Your task to perform on an android device: check android version Image 0: 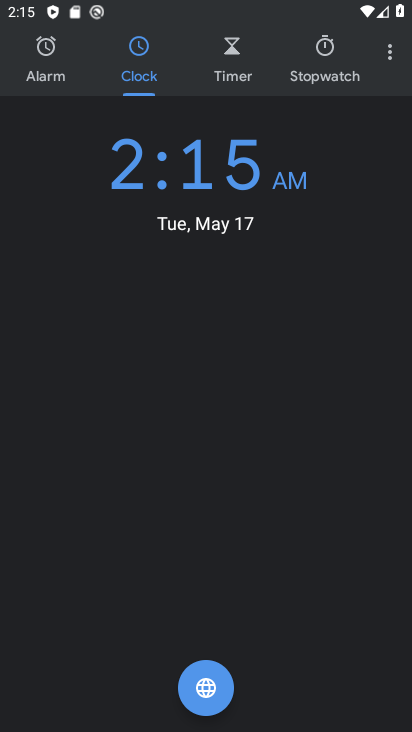
Step 0: press home button
Your task to perform on an android device: check android version Image 1: 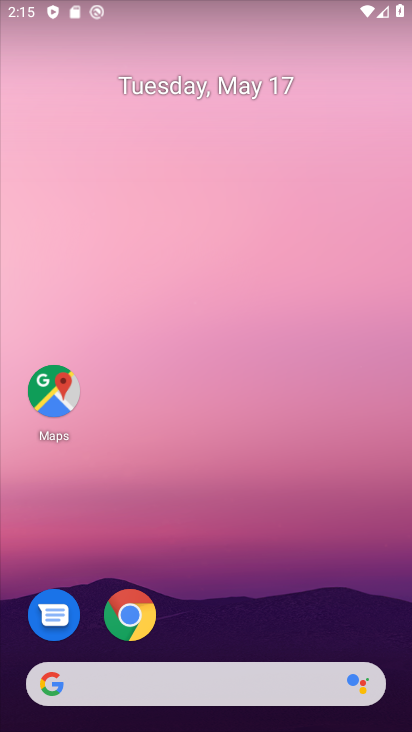
Step 1: drag from (205, 700) to (211, 258)
Your task to perform on an android device: check android version Image 2: 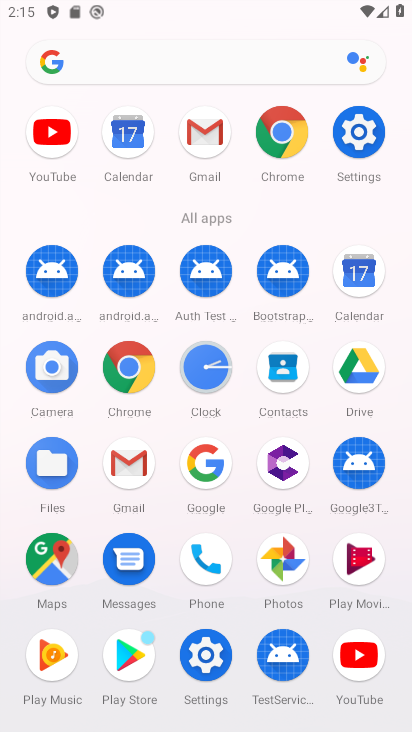
Step 2: click (352, 126)
Your task to perform on an android device: check android version Image 3: 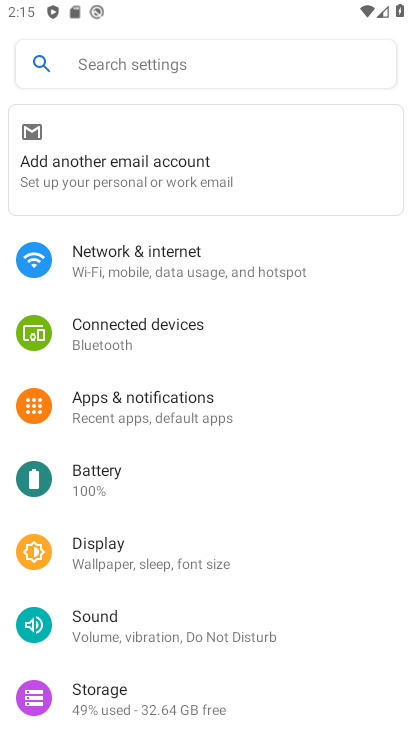
Step 3: drag from (186, 672) to (207, 219)
Your task to perform on an android device: check android version Image 4: 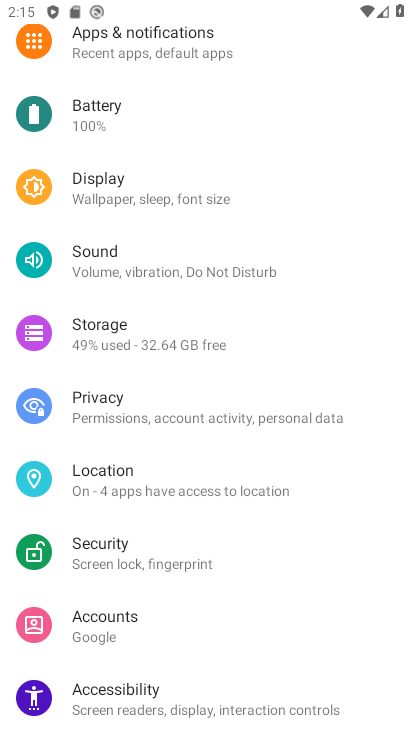
Step 4: drag from (143, 637) to (150, 252)
Your task to perform on an android device: check android version Image 5: 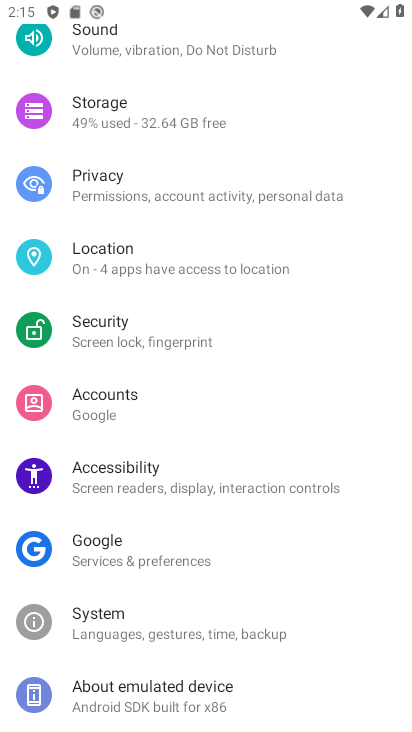
Step 5: drag from (134, 660) to (144, 303)
Your task to perform on an android device: check android version Image 6: 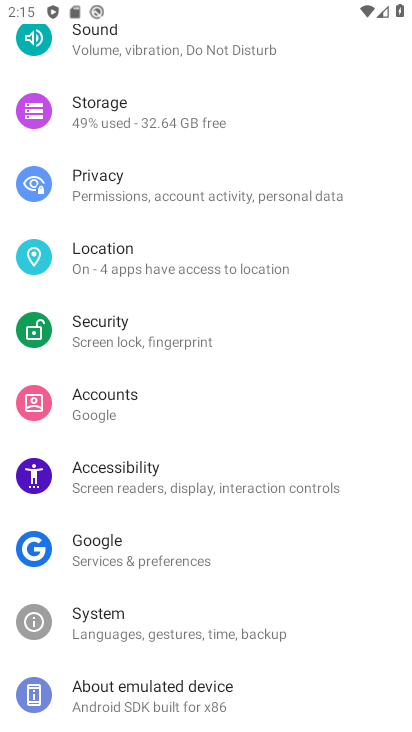
Step 6: drag from (130, 691) to (140, 299)
Your task to perform on an android device: check android version Image 7: 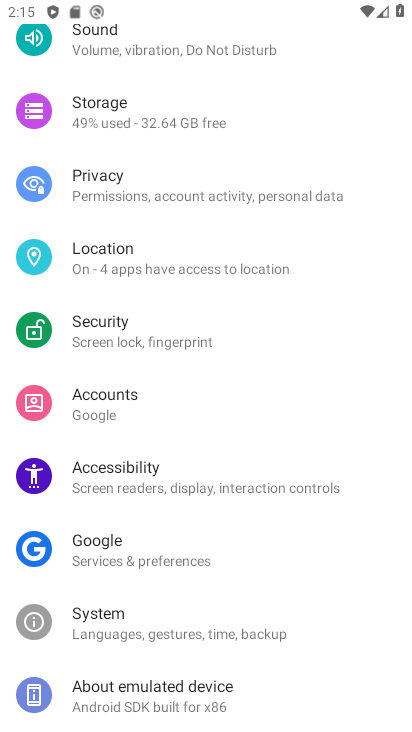
Step 7: click (131, 682)
Your task to perform on an android device: check android version Image 8: 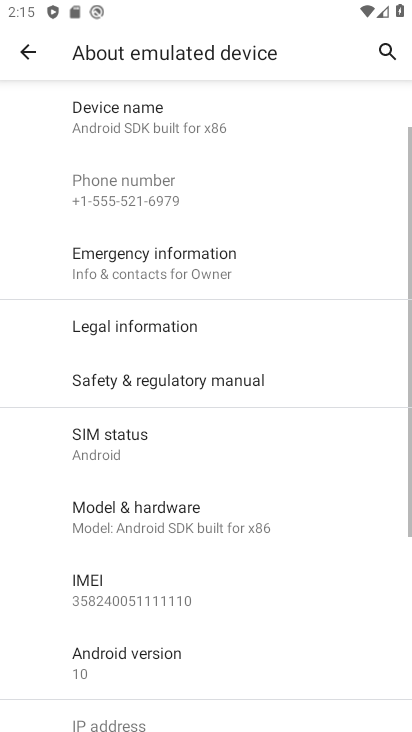
Step 8: drag from (161, 650) to (167, 343)
Your task to perform on an android device: check android version Image 9: 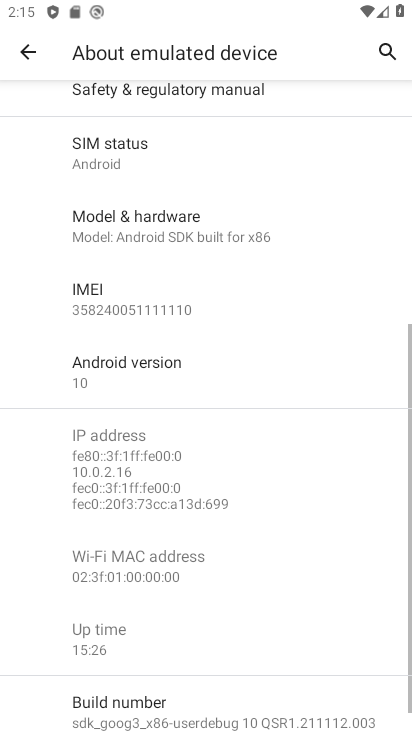
Step 9: click (147, 363)
Your task to perform on an android device: check android version Image 10: 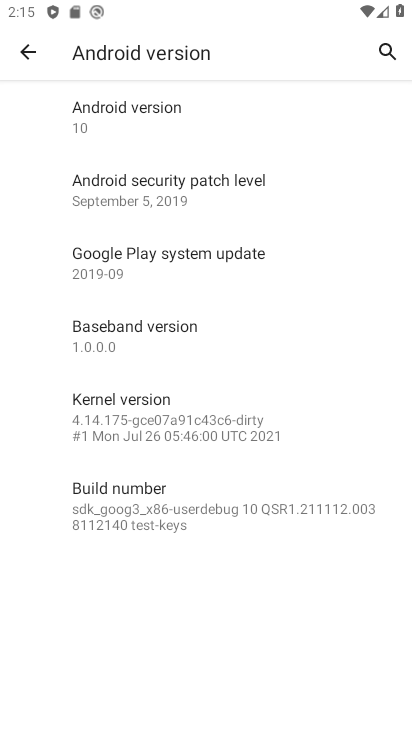
Step 10: task complete